Your task to perform on an android device: Open Maps and search for coffee Image 0: 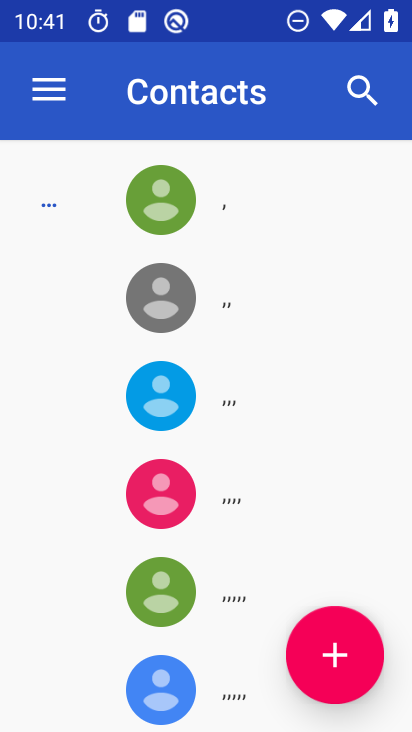
Step 0: press home button
Your task to perform on an android device: Open Maps and search for coffee Image 1: 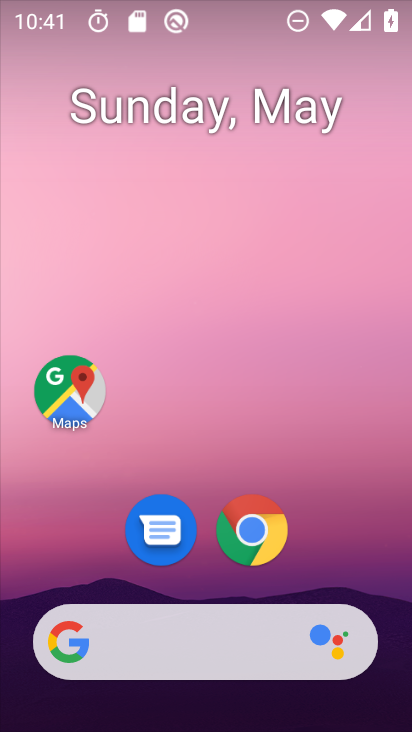
Step 1: drag from (244, 690) to (313, 152)
Your task to perform on an android device: Open Maps and search for coffee Image 2: 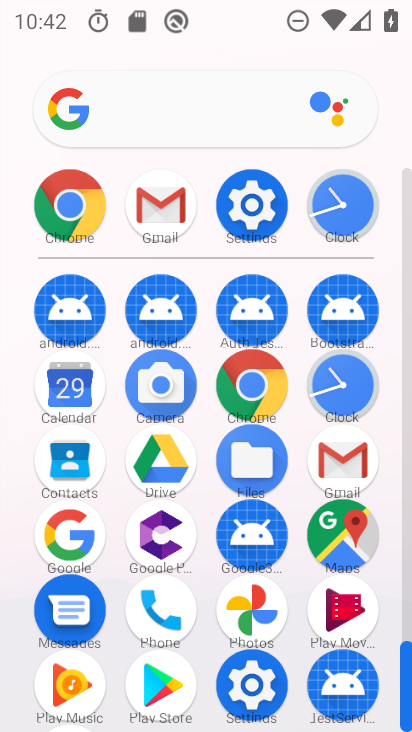
Step 2: click (343, 523)
Your task to perform on an android device: Open Maps and search for coffee Image 3: 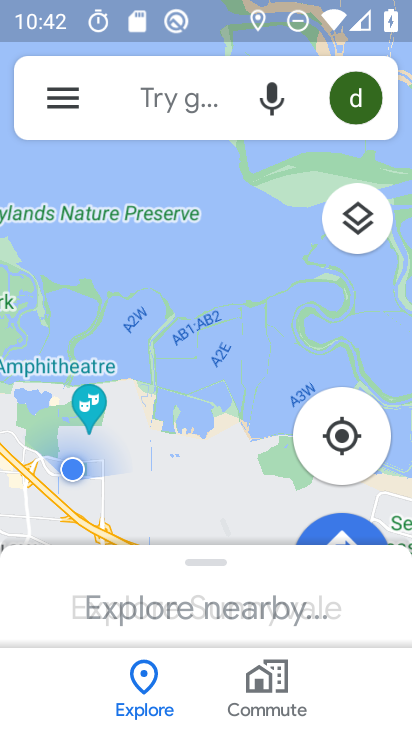
Step 3: click (142, 75)
Your task to perform on an android device: Open Maps and search for coffee Image 4: 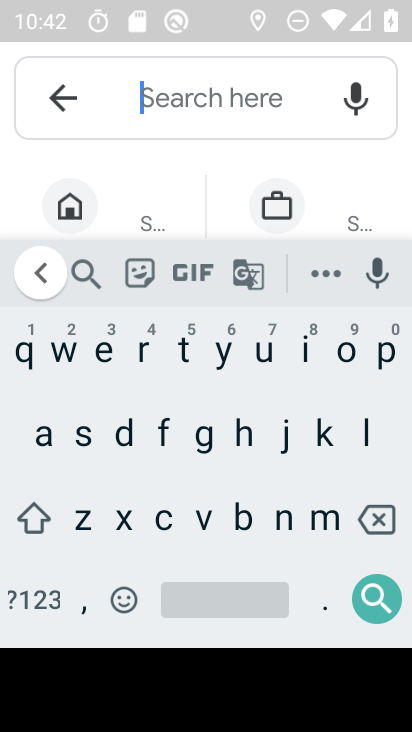
Step 4: click (156, 527)
Your task to perform on an android device: Open Maps and search for coffee Image 5: 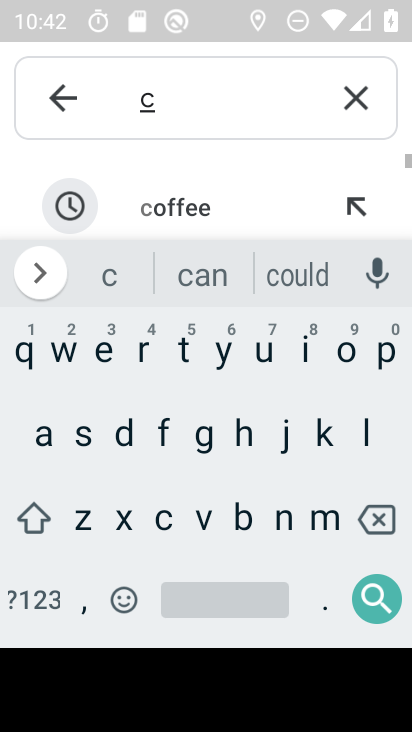
Step 5: click (343, 358)
Your task to perform on an android device: Open Maps and search for coffee Image 6: 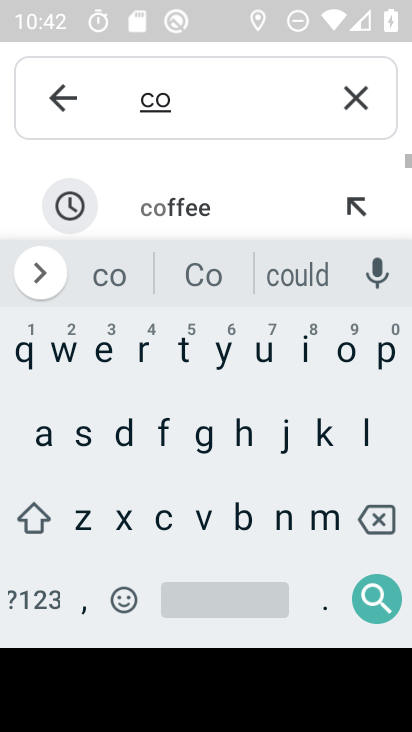
Step 6: click (200, 199)
Your task to perform on an android device: Open Maps and search for coffee Image 7: 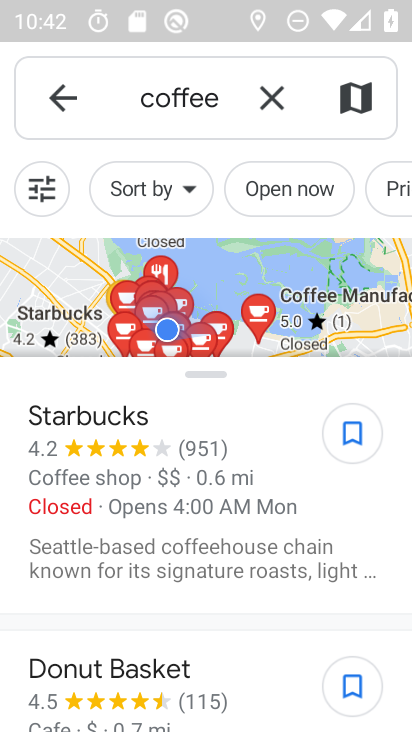
Step 7: click (93, 296)
Your task to perform on an android device: Open Maps and search for coffee Image 8: 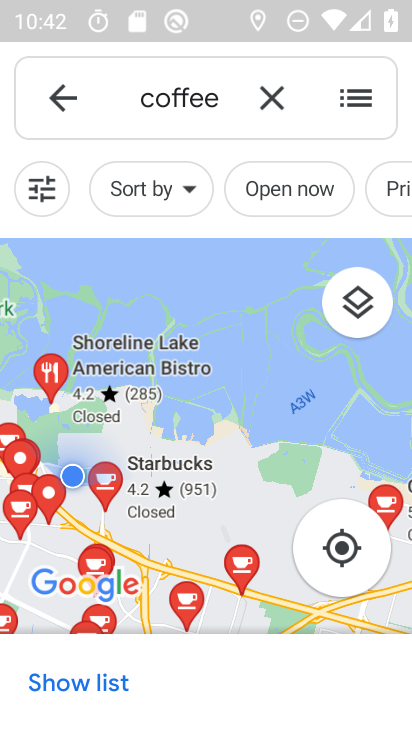
Step 8: task complete